Your task to perform on an android device: Open Chrome and go to the settings page Image 0: 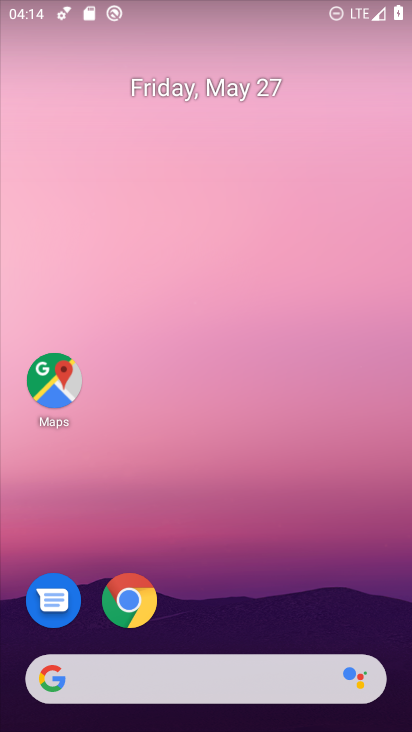
Step 0: click (135, 601)
Your task to perform on an android device: Open Chrome and go to the settings page Image 1: 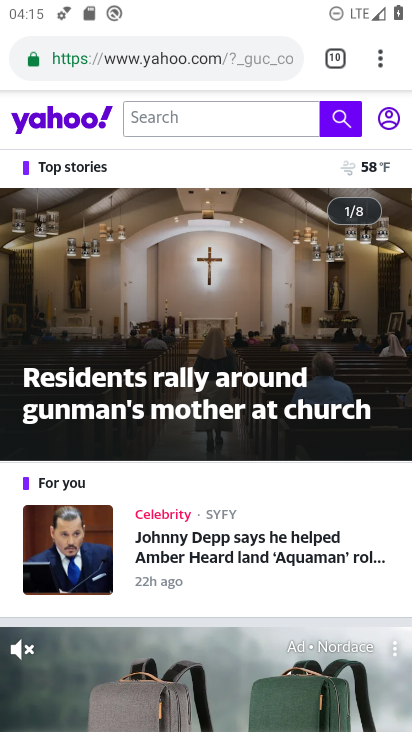
Step 1: click (382, 67)
Your task to perform on an android device: Open Chrome and go to the settings page Image 2: 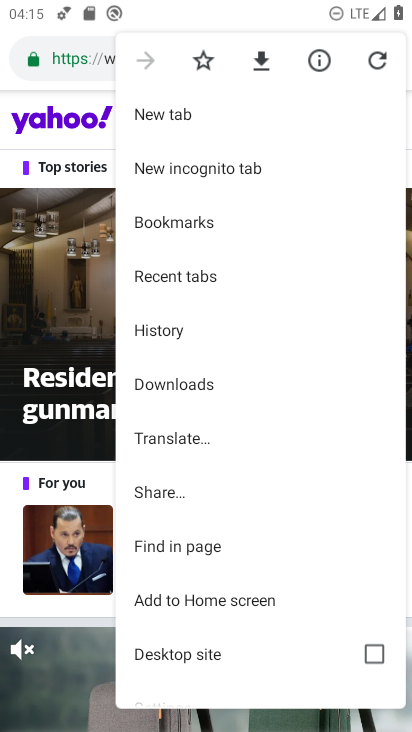
Step 2: drag from (206, 669) to (213, 276)
Your task to perform on an android device: Open Chrome and go to the settings page Image 3: 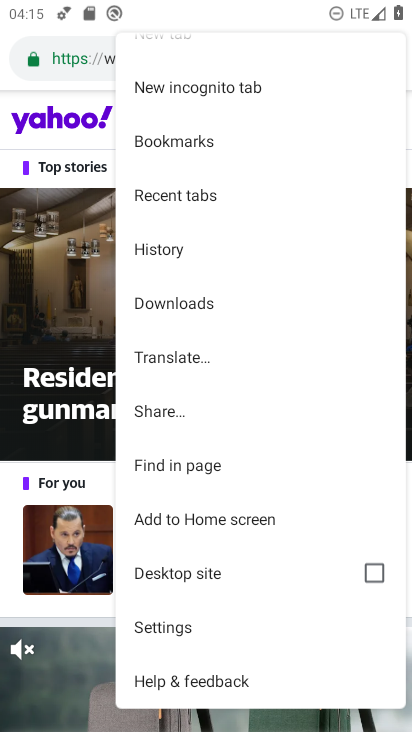
Step 3: click (175, 627)
Your task to perform on an android device: Open Chrome and go to the settings page Image 4: 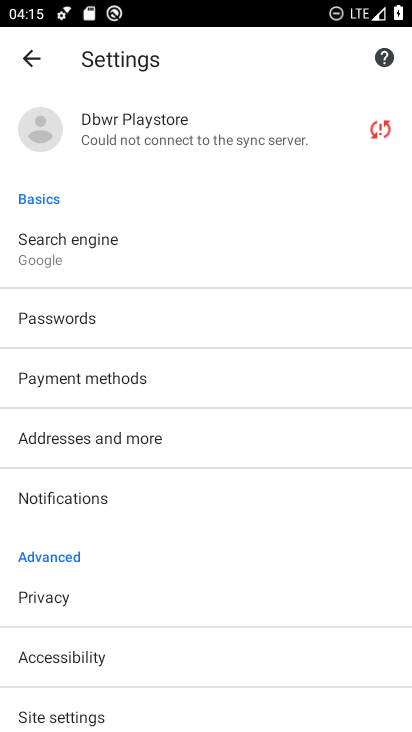
Step 4: task complete